Your task to perform on an android device: Open the map Image 0: 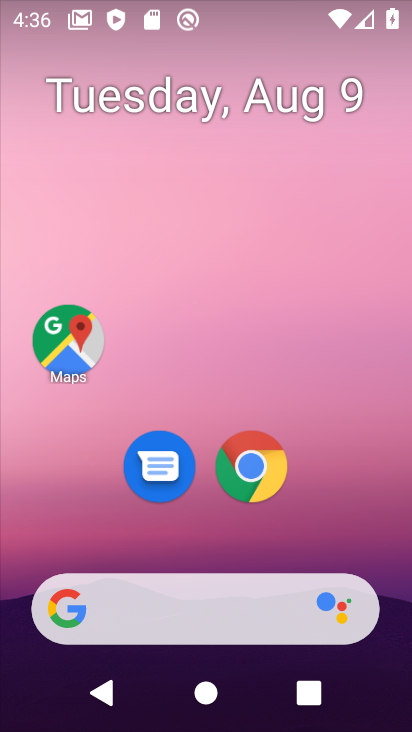
Step 0: click (59, 353)
Your task to perform on an android device: Open the map Image 1: 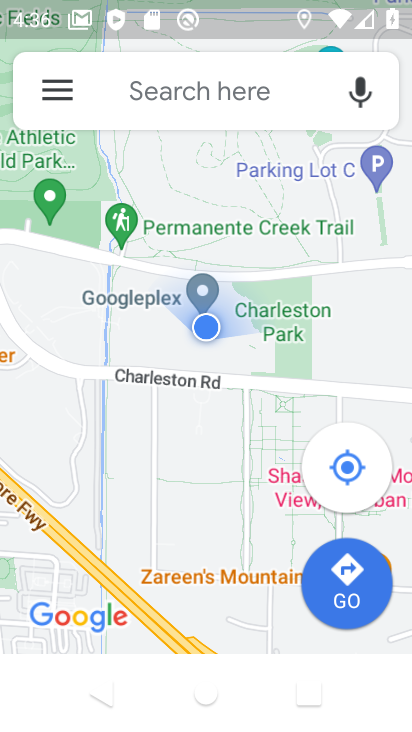
Step 1: task complete